Your task to perform on an android device: Search for the best coffee tables on Crate & Barrel Image 0: 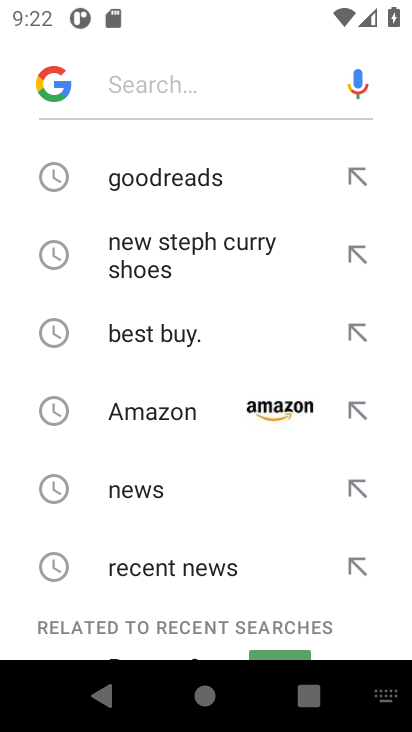
Step 0: click (182, 280)
Your task to perform on an android device: Search for the best coffee tables on Crate & Barrel Image 1: 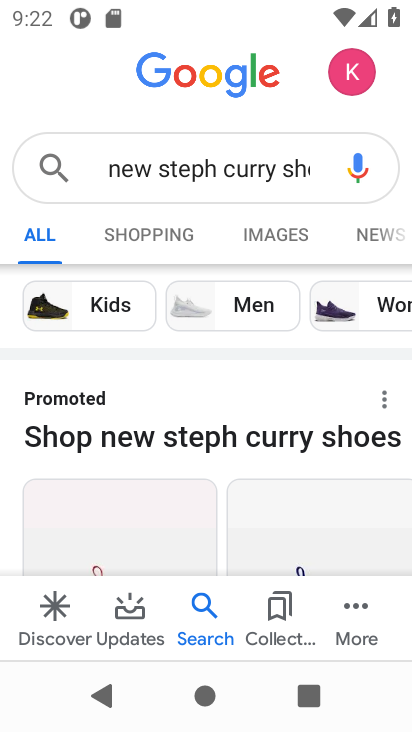
Step 1: click (73, 293)
Your task to perform on an android device: Search for the best coffee tables on Crate & Barrel Image 2: 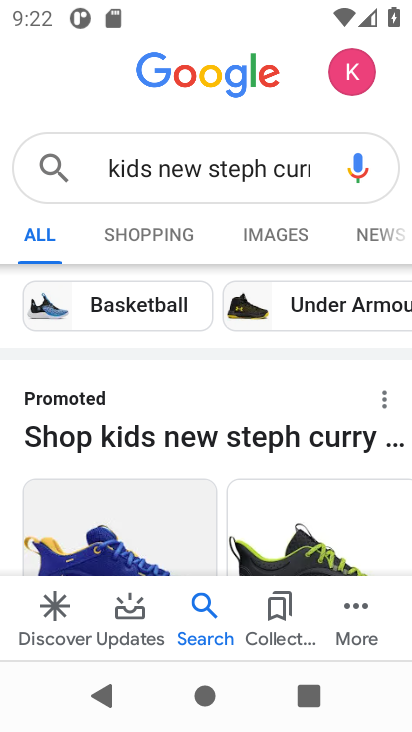
Step 2: task complete